Your task to perform on an android device: Turn on the flashlight Image 0: 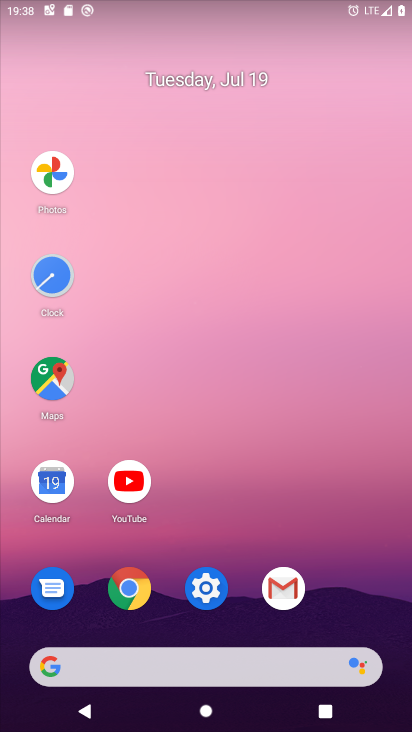
Step 0: click (215, 589)
Your task to perform on an android device: Turn on the flashlight Image 1: 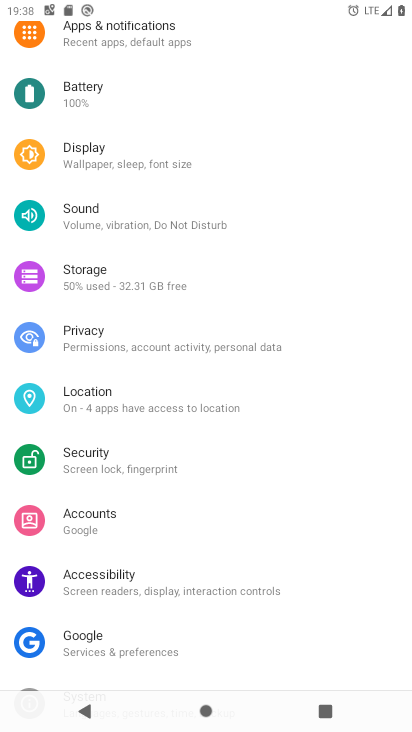
Step 1: drag from (328, 110) to (308, 477)
Your task to perform on an android device: Turn on the flashlight Image 2: 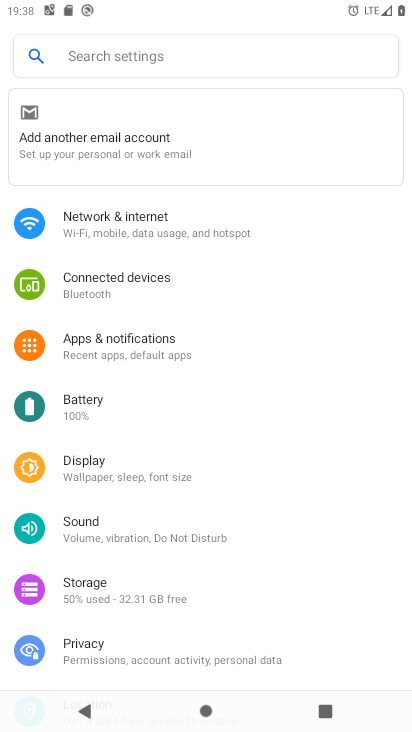
Step 2: click (94, 461)
Your task to perform on an android device: Turn on the flashlight Image 3: 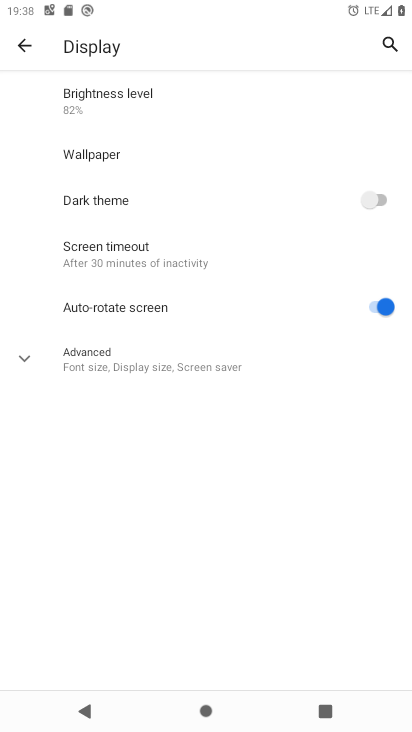
Step 3: task complete